Your task to perform on an android device: What is the news today? Image 0: 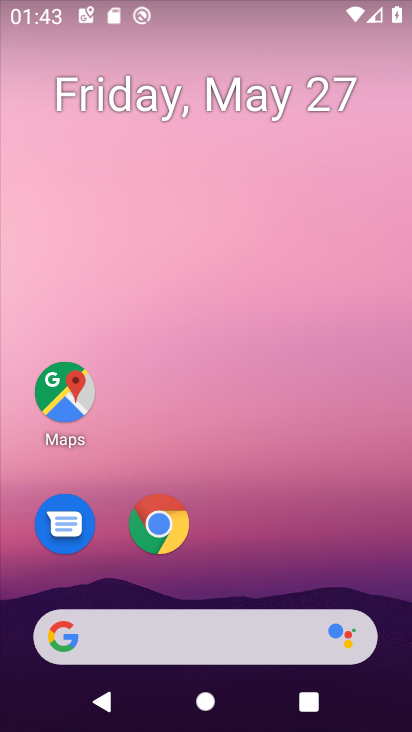
Step 0: drag from (229, 554) to (211, 48)
Your task to perform on an android device: What is the news today? Image 1: 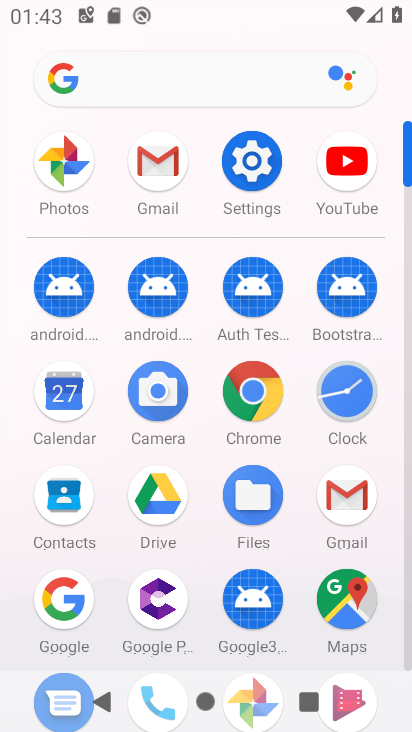
Step 1: click (190, 58)
Your task to perform on an android device: What is the news today? Image 2: 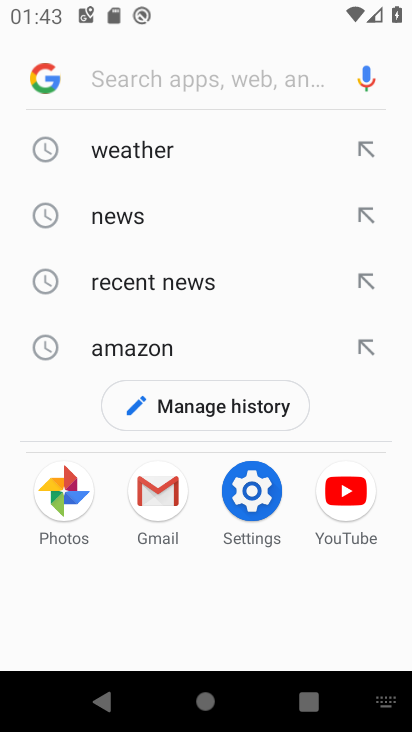
Step 2: click (128, 209)
Your task to perform on an android device: What is the news today? Image 3: 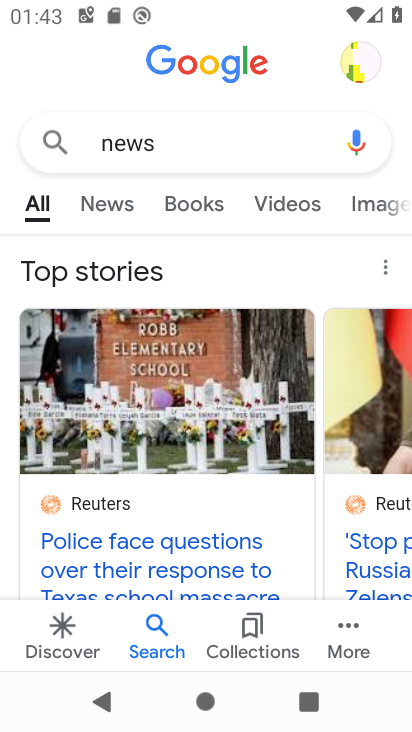
Step 3: click (105, 195)
Your task to perform on an android device: What is the news today? Image 4: 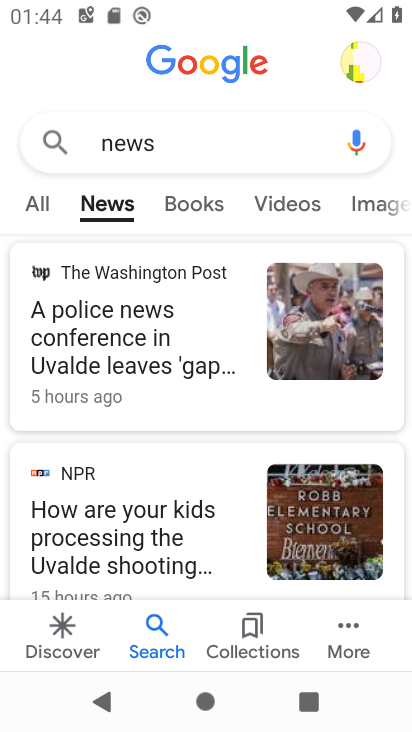
Step 4: task complete